Your task to perform on an android device: create a new album in the google photos Image 0: 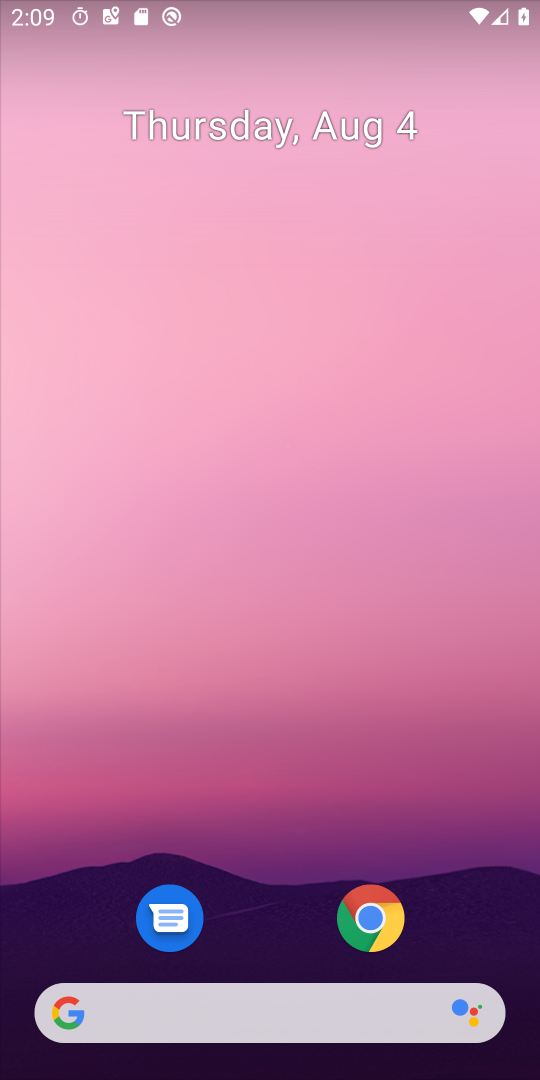
Step 0: drag from (265, 936) to (293, 350)
Your task to perform on an android device: create a new album in the google photos Image 1: 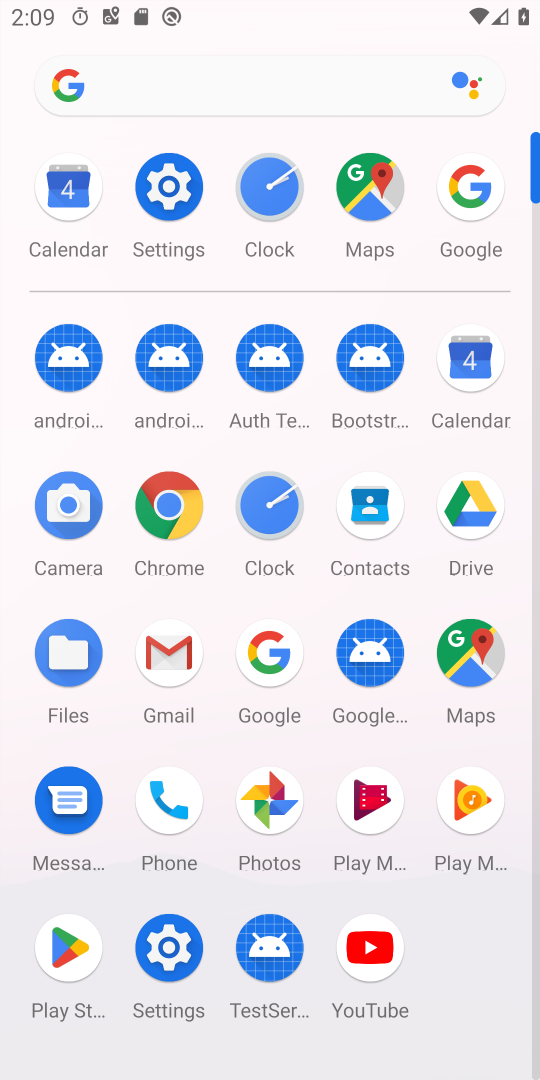
Step 1: click (283, 792)
Your task to perform on an android device: create a new album in the google photos Image 2: 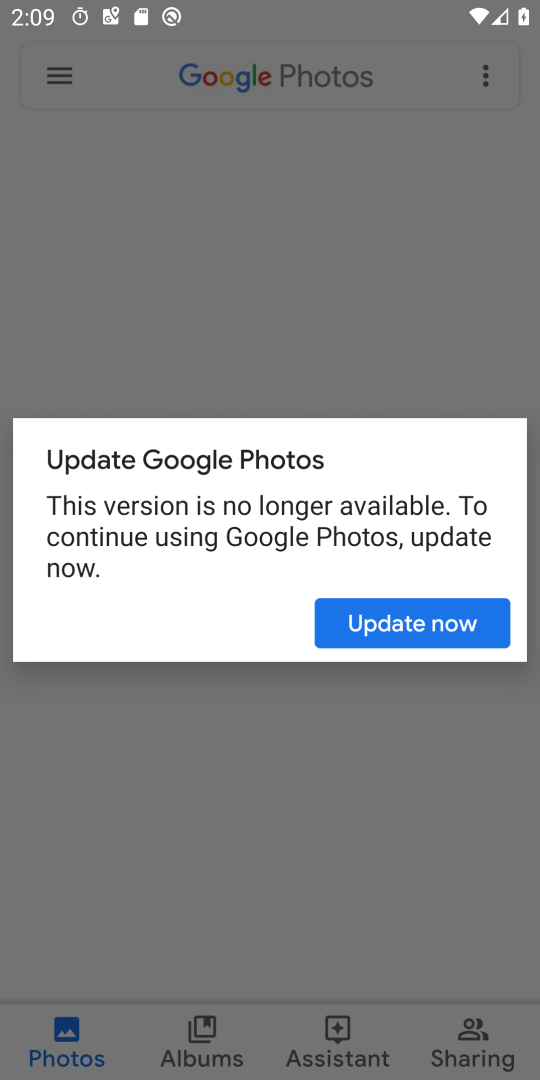
Step 2: click (371, 632)
Your task to perform on an android device: create a new album in the google photos Image 3: 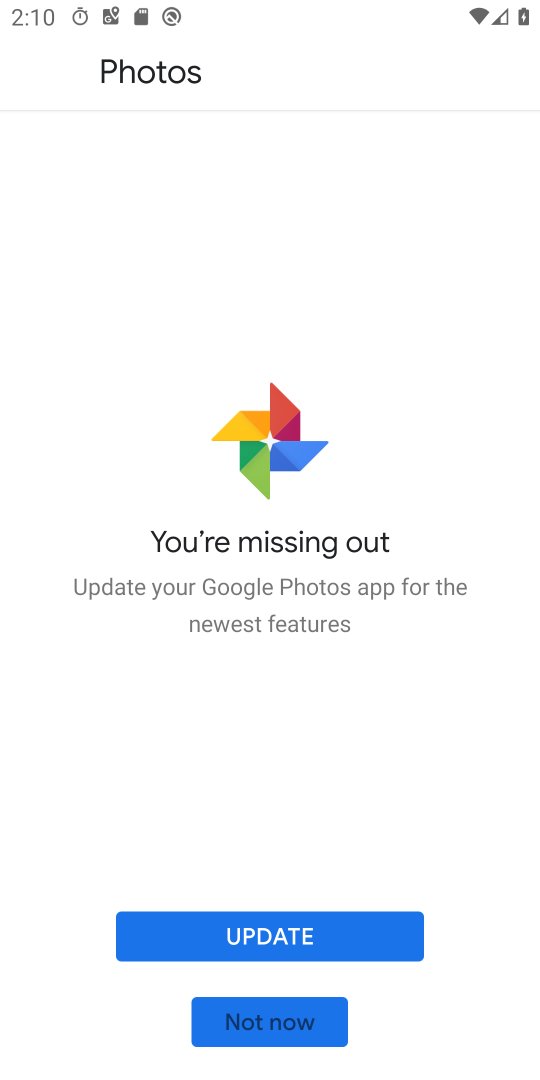
Step 3: click (291, 1013)
Your task to perform on an android device: create a new album in the google photos Image 4: 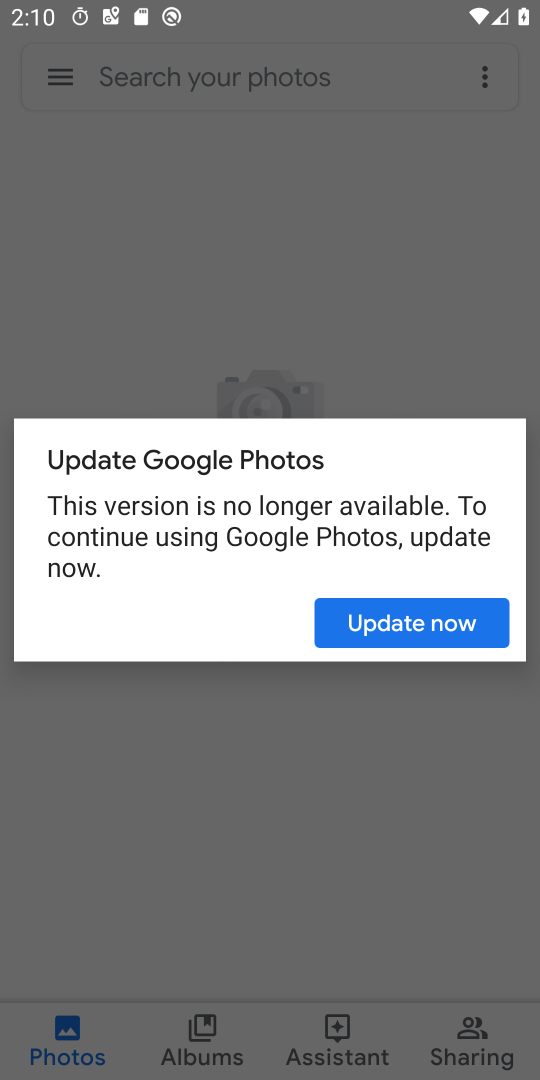
Step 4: click (472, 628)
Your task to perform on an android device: create a new album in the google photos Image 5: 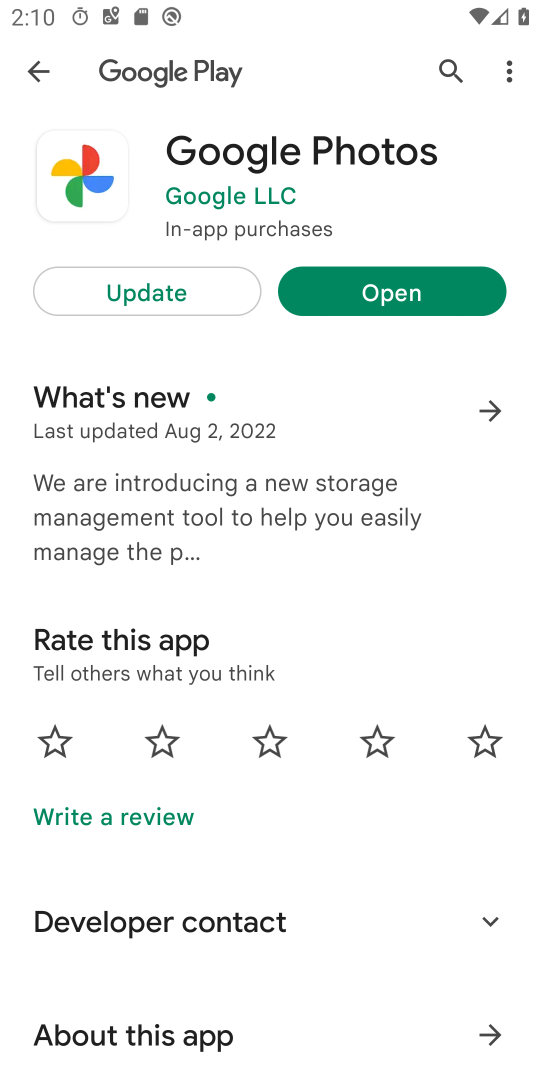
Step 5: click (373, 289)
Your task to perform on an android device: create a new album in the google photos Image 6: 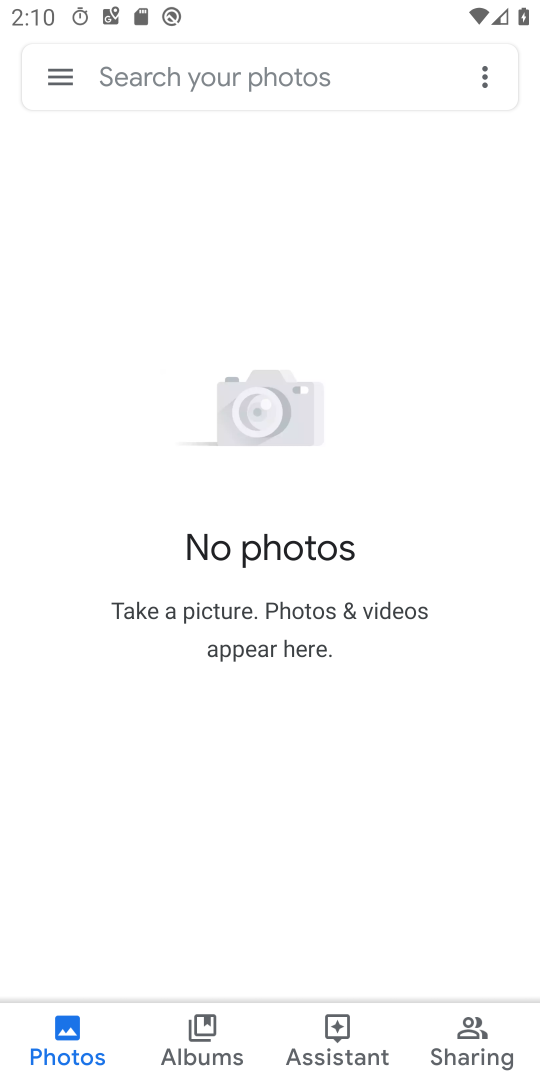
Step 6: click (494, 69)
Your task to perform on an android device: create a new album in the google photos Image 7: 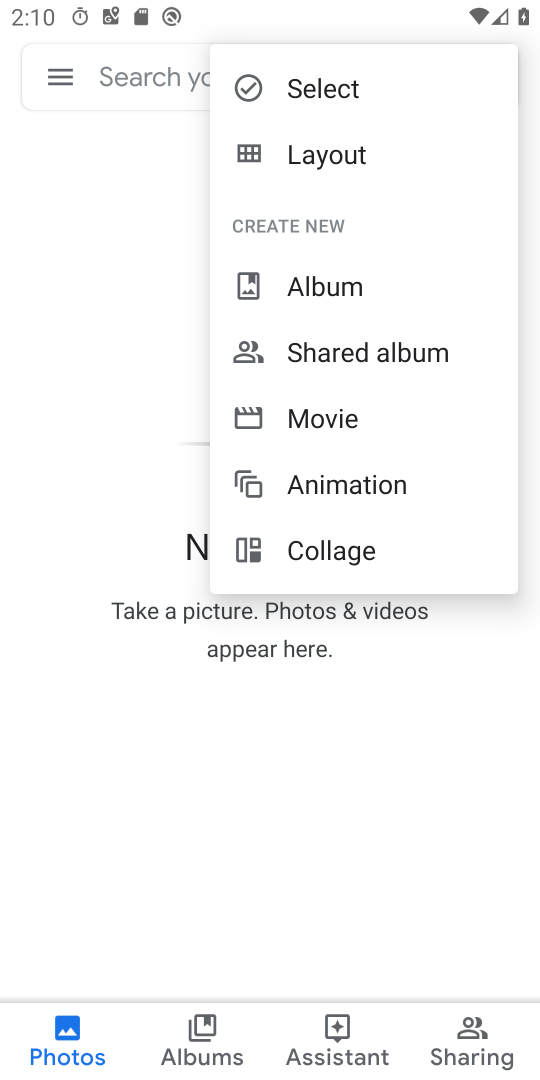
Step 7: click (347, 279)
Your task to perform on an android device: create a new album in the google photos Image 8: 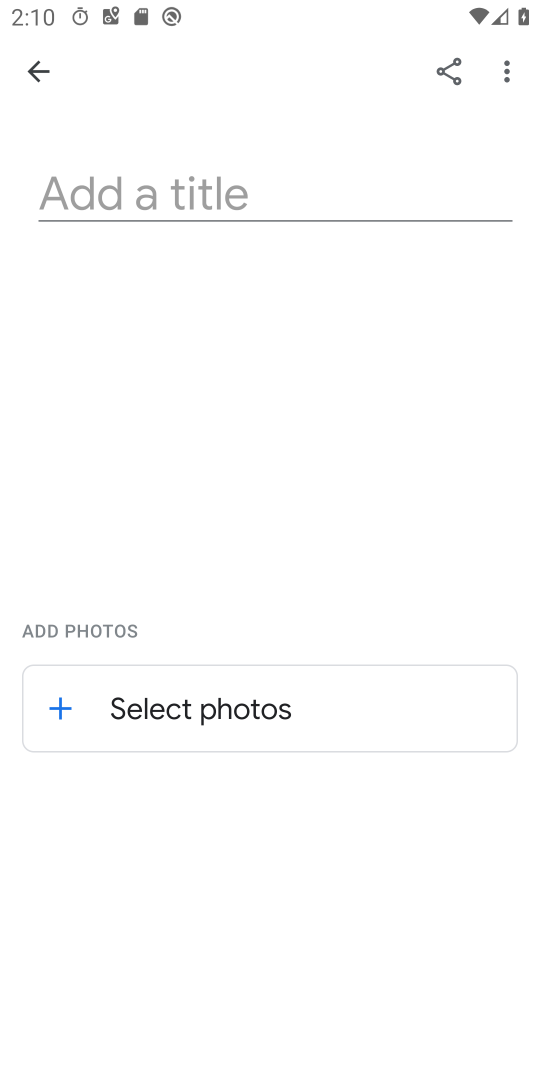
Step 8: click (234, 700)
Your task to perform on an android device: create a new album in the google photos Image 9: 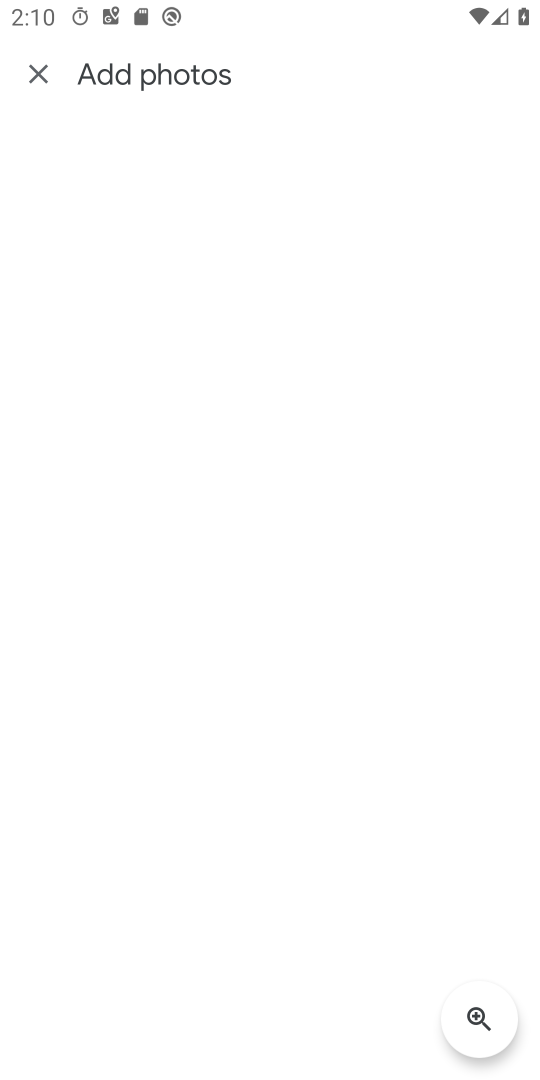
Step 9: click (36, 72)
Your task to perform on an android device: create a new album in the google photos Image 10: 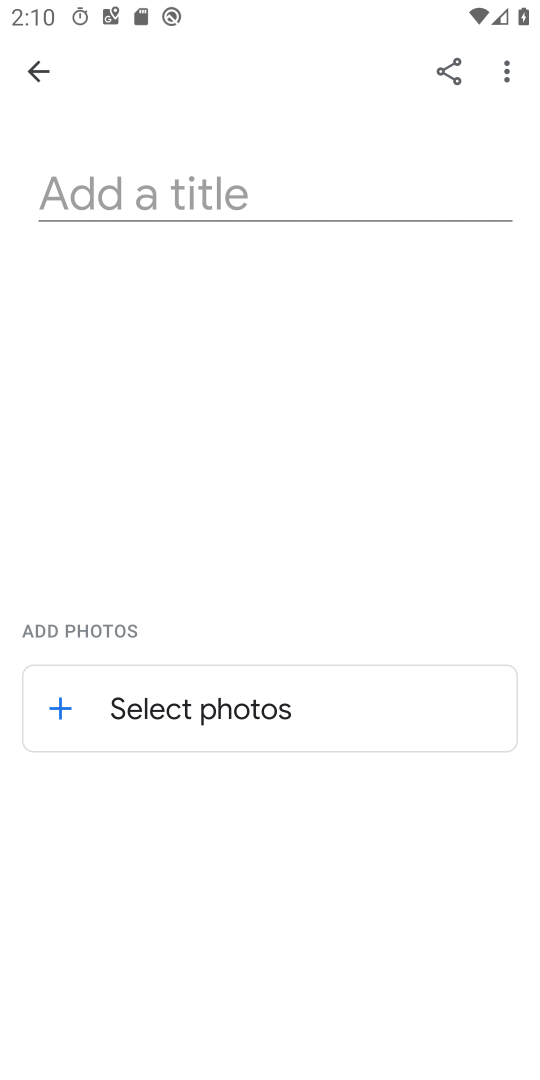
Step 10: click (173, 187)
Your task to perform on an android device: create a new album in the google photos Image 11: 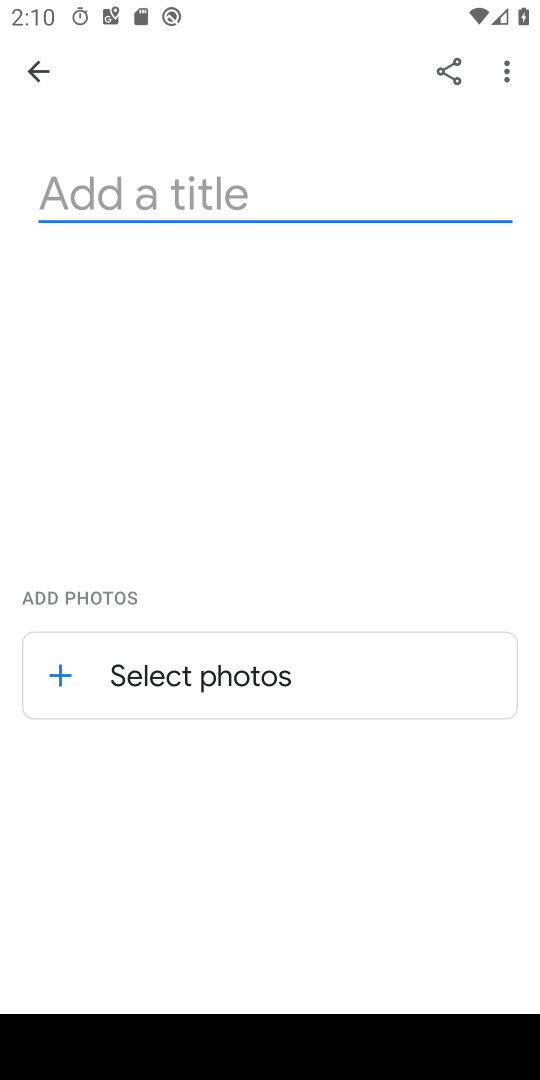
Step 11: type "wdadasd"
Your task to perform on an android device: create a new album in the google photos Image 12: 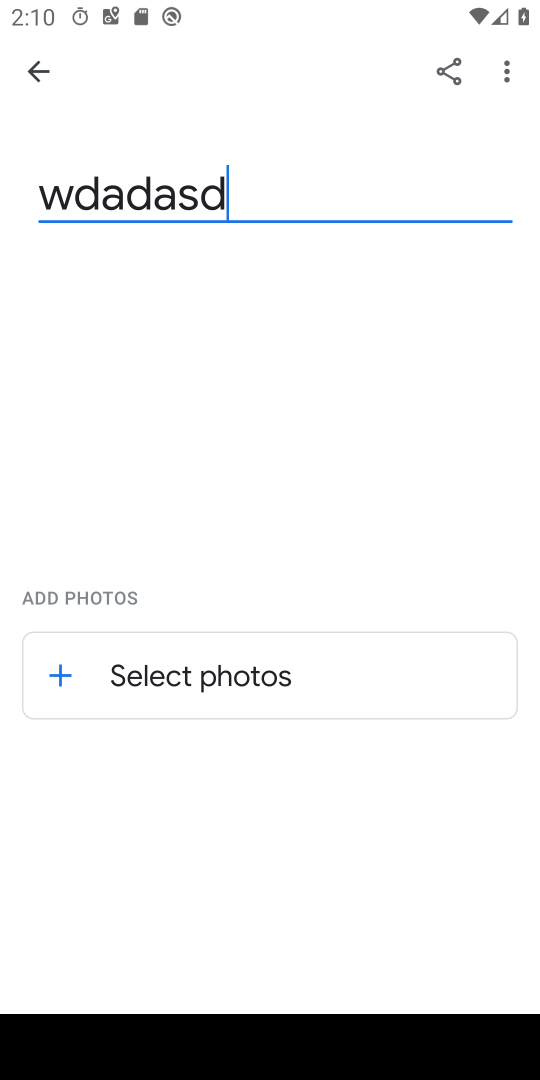
Step 12: type ""
Your task to perform on an android device: create a new album in the google photos Image 13: 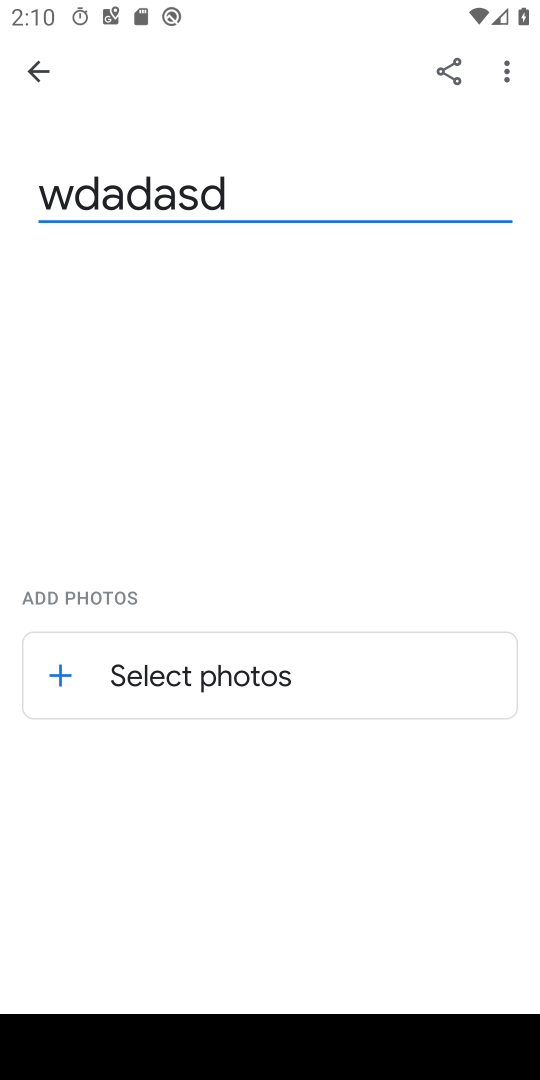
Step 13: click (183, 679)
Your task to perform on an android device: create a new album in the google photos Image 14: 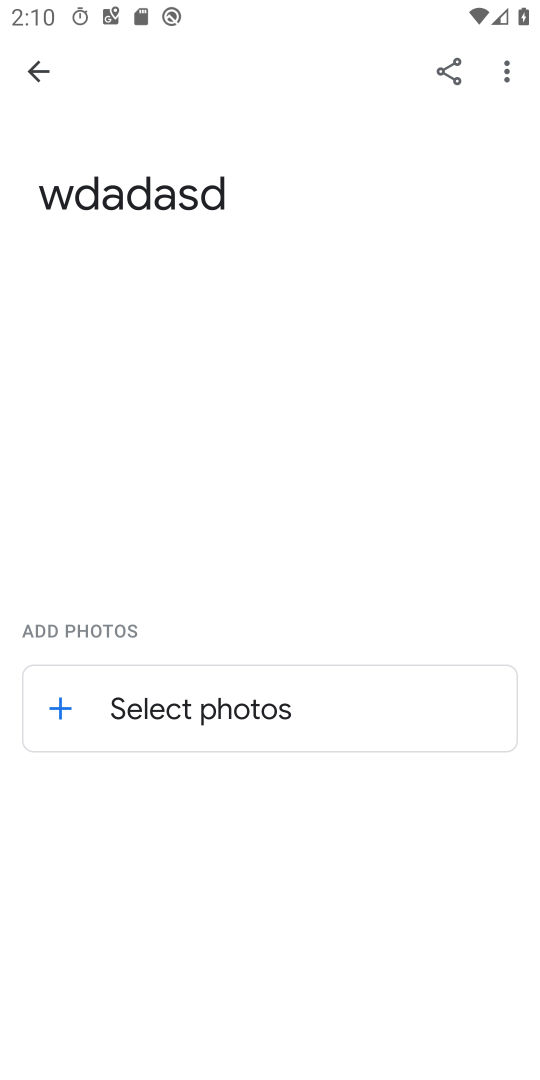
Step 14: task complete